Your task to perform on an android device: Show me popular videos on Youtube Image 0: 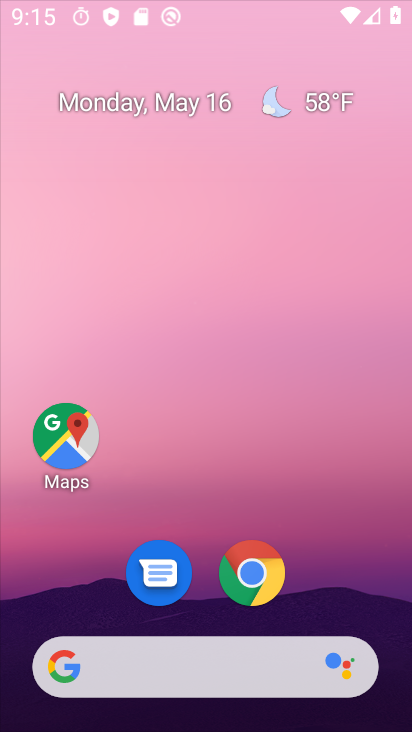
Step 0: drag from (254, 478) to (181, 197)
Your task to perform on an android device: Show me popular videos on Youtube Image 1: 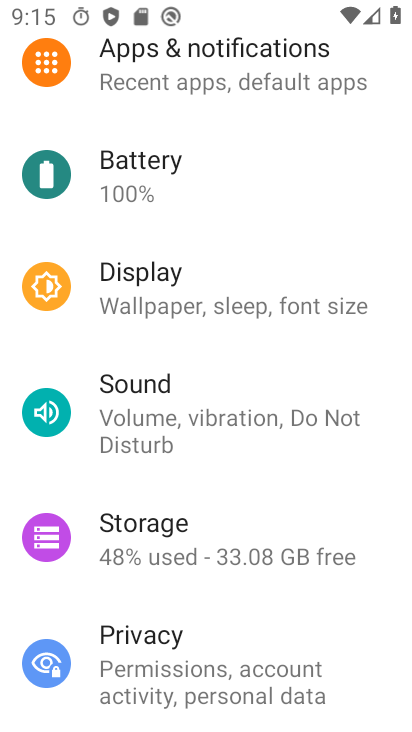
Step 1: press back button
Your task to perform on an android device: Show me popular videos on Youtube Image 2: 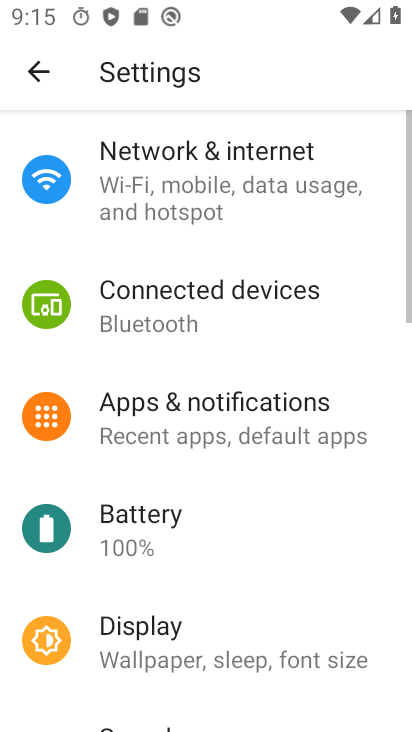
Step 2: press home button
Your task to perform on an android device: Show me popular videos on Youtube Image 3: 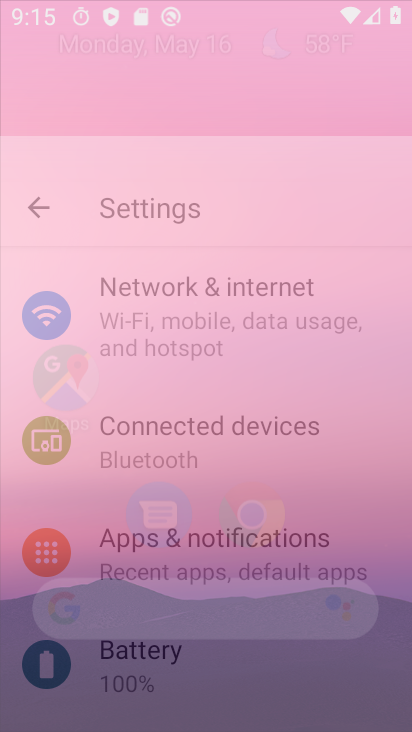
Step 3: press home button
Your task to perform on an android device: Show me popular videos on Youtube Image 4: 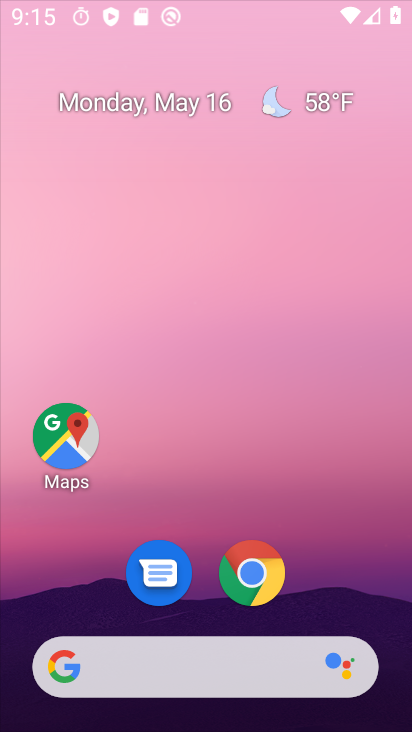
Step 4: press home button
Your task to perform on an android device: Show me popular videos on Youtube Image 5: 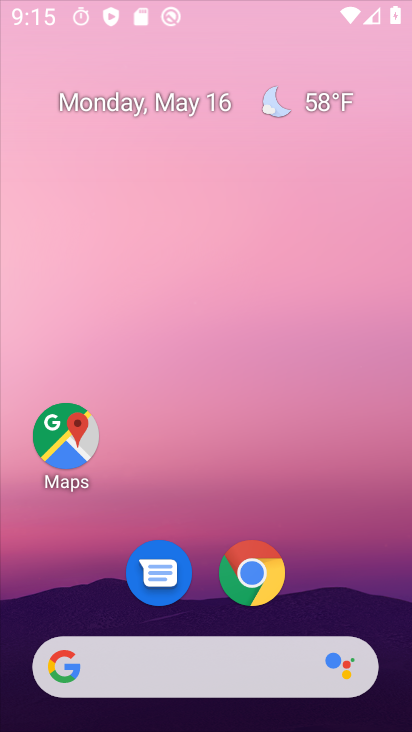
Step 5: drag from (294, 626) to (269, 149)
Your task to perform on an android device: Show me popular videos on Youtube Image 6: 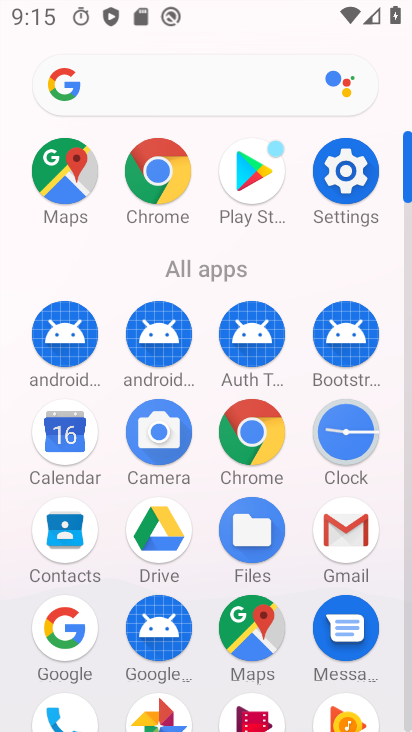
Step 6: drag from (311, 580) to (293, 53)
Your task to perform on an android device: Show me popular videos on Youtube Image 7: 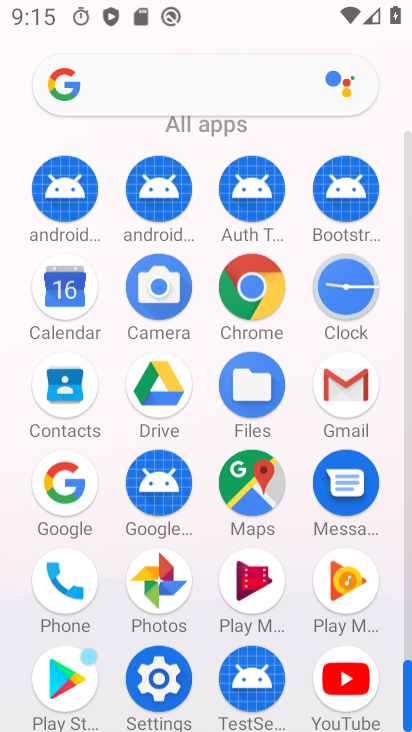
Step 7: drag from (251, 534) to (318, 135)
Your task to perform on an android device: Show me popular videos on Youtube Image 8: 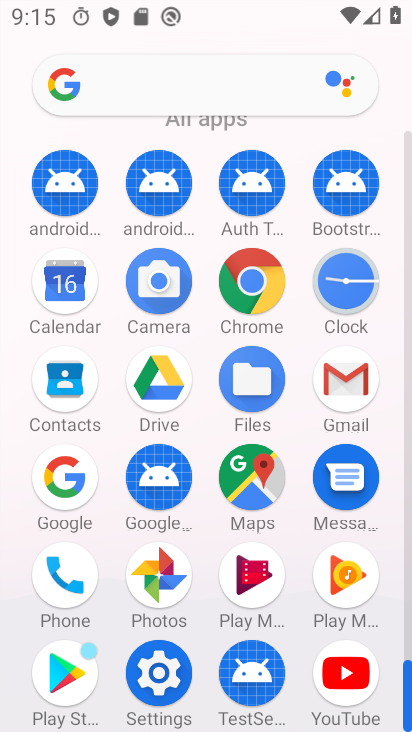
Step 8: click (346, 665)
Your task to perform on an android device: Show me popular videos on Youtube Image 9: 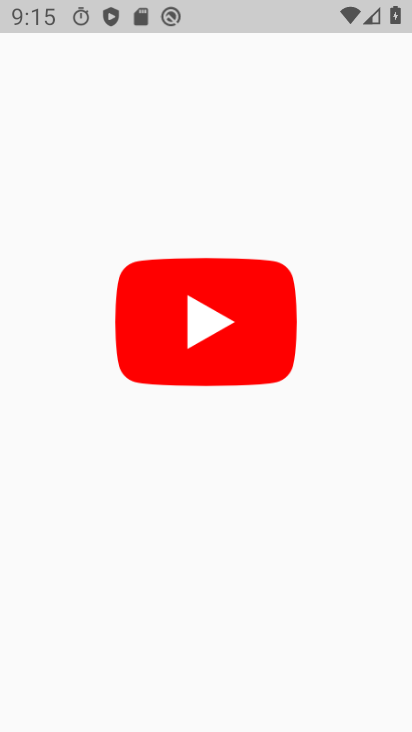
Step 9: click (347, 666)
Your task to perform on an android device: Show me popular videos on Youtube Image 10: 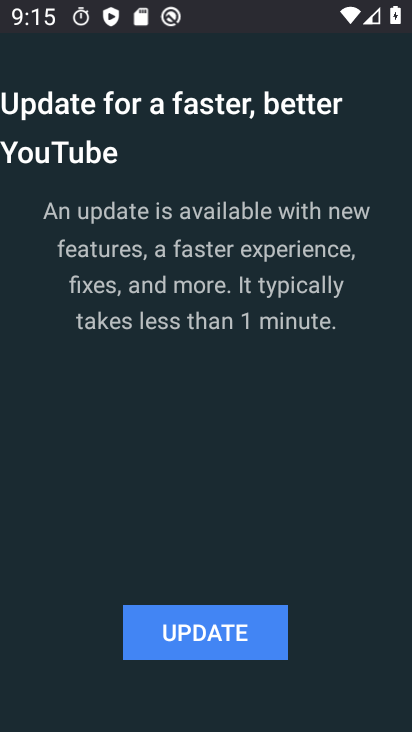
Step 10: click (347, 666)
Your task to perform on an android device: Show me popular videos on Youtube Image 11: 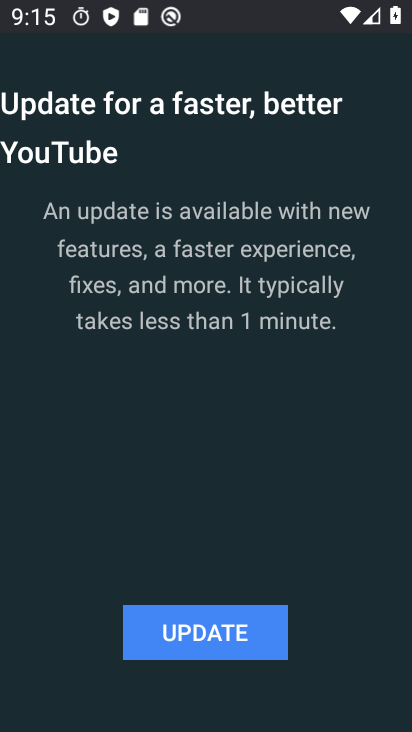
Step 11: click (347, 666)
Your task to perform on an android device: Show me popular videos on Youtube Image 12: 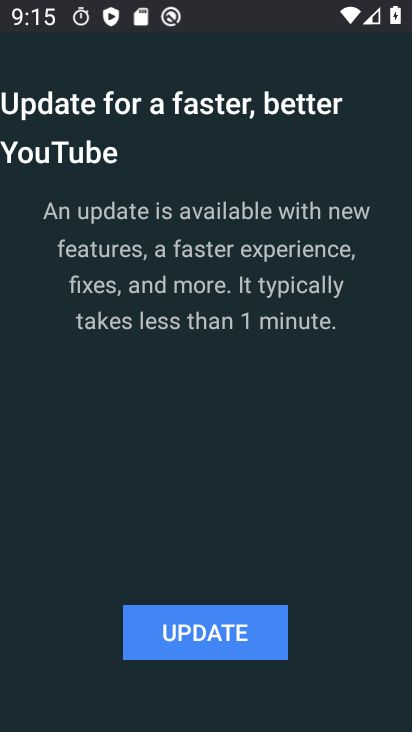
Step 12: click (177, 632)
Your task to perform on an android device: Show me popular videos on Youtube Image 13: 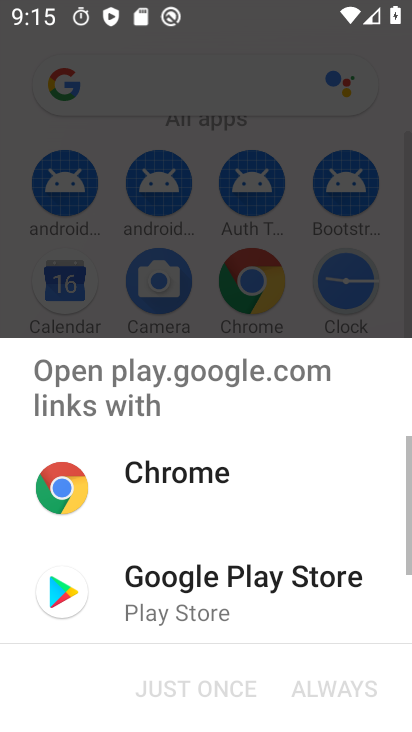
Step 13: click (181, 590)
Your task to perform on an android device: Show me popular videos on Youtube Image 14: 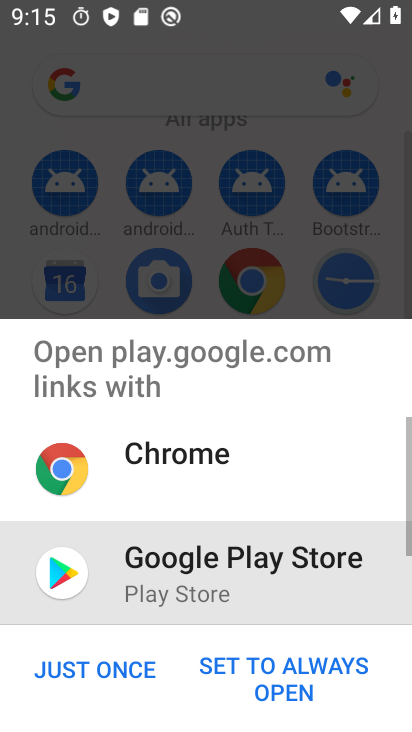
Step 14: click (182, 579)
Your task to perform on an android device: Show me popular videos on Youtube Image 15: 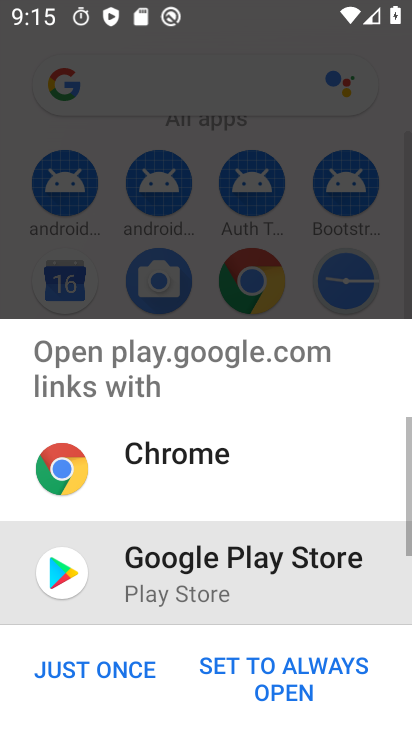
Step 15: click (182, 579)
Your task to perform on an android device: Show me popular videos on Youtube Image 16: 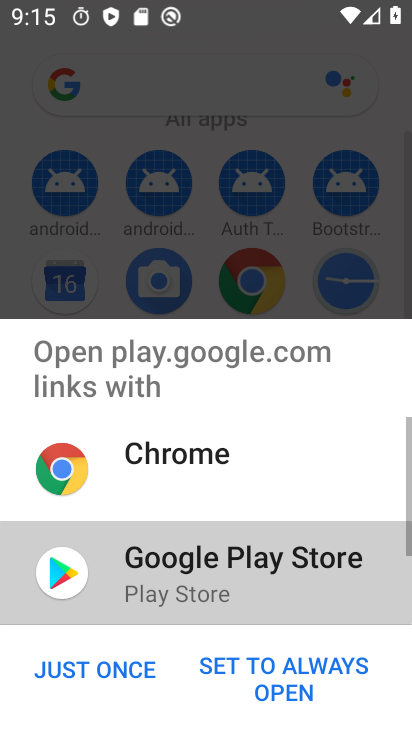
Step 16: click (182, 573)
Your task to perform on an android device: Show me popular videos on Youtube Image 17: 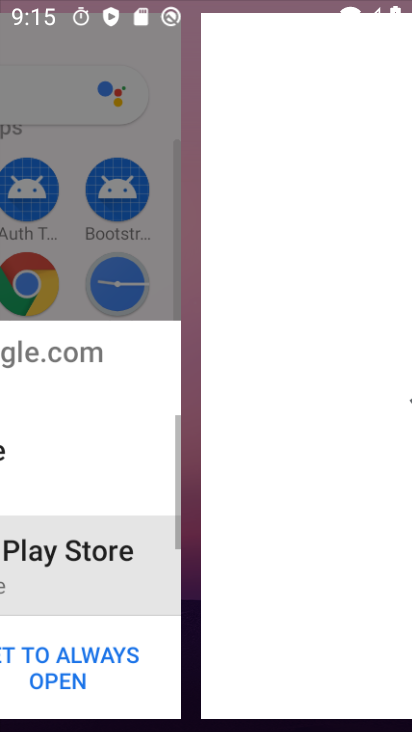
Step 17: click (178, 560)
Your task to perform on an android device: Show me popular videos on Youtube Image 18: 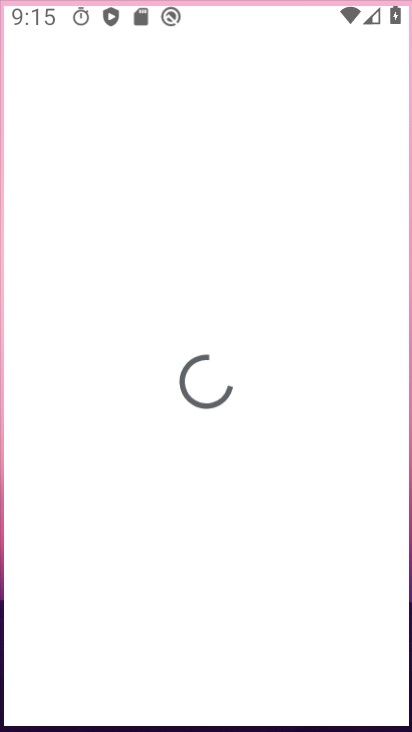
Step 18: click (178, 553)
Your task to perform on an android device: Show me popular videos on Youtube Image 19: 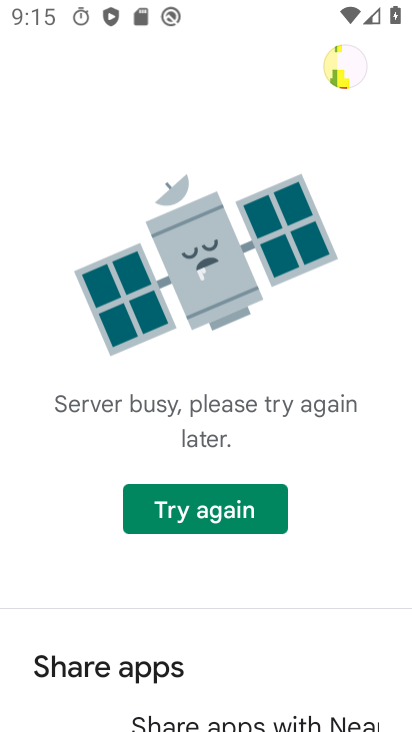
Step 19: click (235, 510)
Your task to perform on an android device: Show me popular videos on Youtube Image 20: 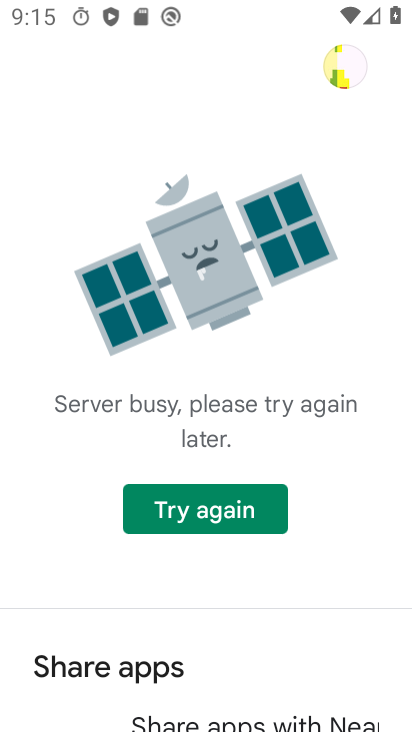
Step 20: click (236, 509)
Your task to perform on an android device: Show me popular videos on Youtube Image 21: 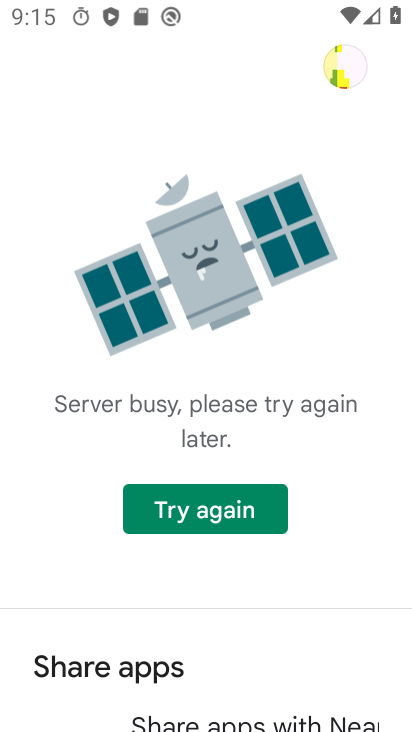
Step 21: click (235, 504)
Your task to perform on an android device: Show me popular videos on Youtube Image 22: 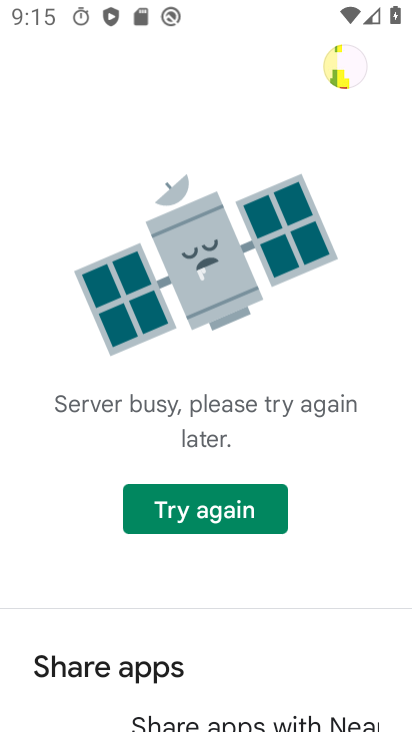
Step 22: click (235, 496)
Your task to perform on an android device: Show me popular videos on Youtube Image 23: 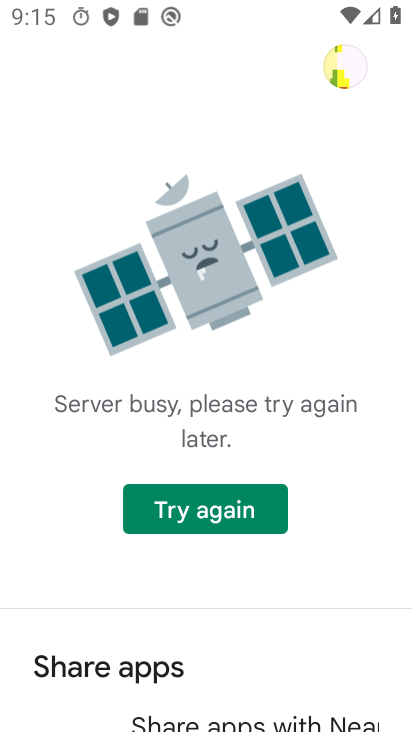
Step 23: task complete